Your task to perform on an android device: open the mobile data screen to see how much data has been used Image 0: 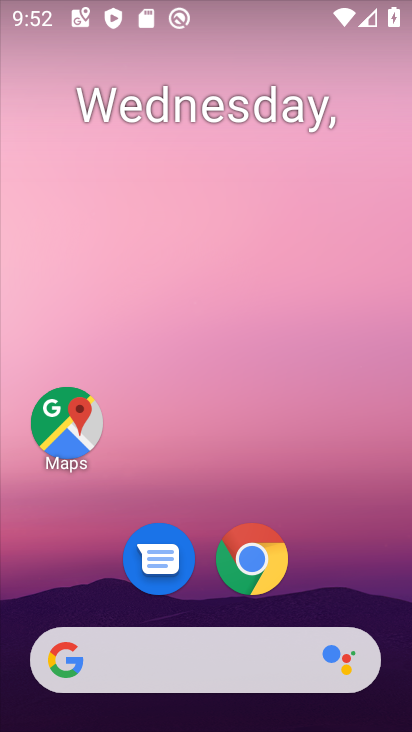
Step 0: drag from (226, 499) to (221, 41)
Your task to perform on an android device: open the mobile data screen to see how much data has been used Image 1: 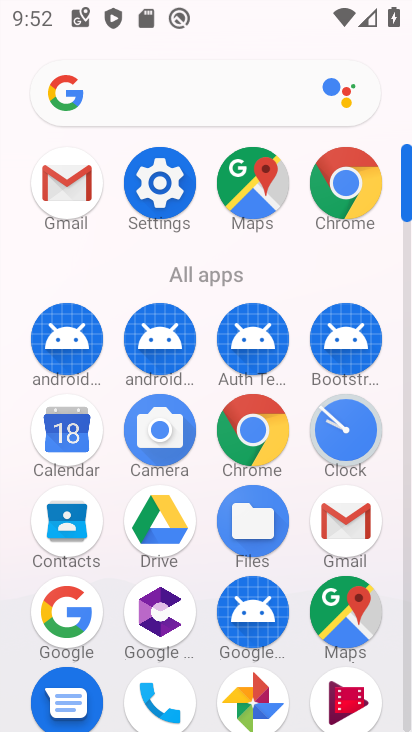
Step 1: click (149, 167)
Your task to perform on an android device: open the mobile data screen to see how much data has been used Image 2: 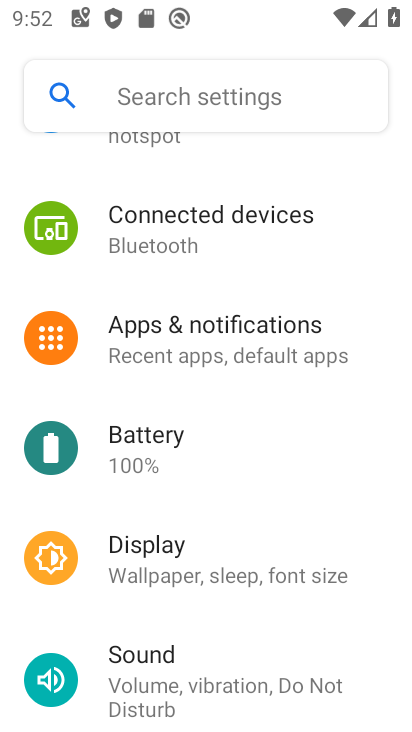
Step 2: drag from (200, 298) to (216, 580)
Your task to perform on an android device: open the mobile data screen to see how much data has been used Image 3: 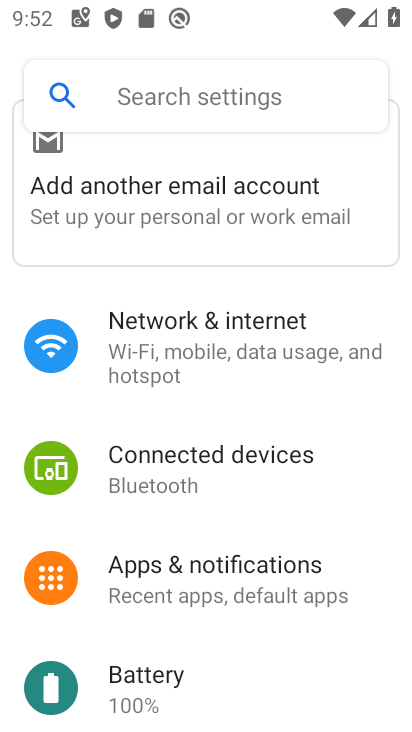
Step 3: click (265, 325)
Your task to perform on an android device: open the mobile data screen to see how much data has been used Image 4: 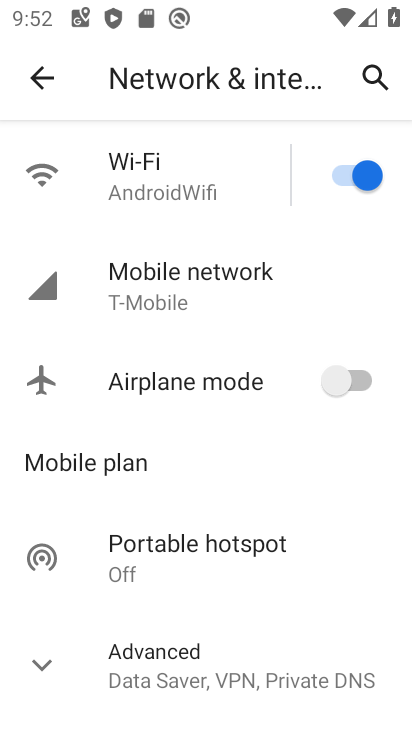
Step 4: click (278, 274)
Your task to perform on an android device: open the mobile data screen to see how much data has been used Image 5: 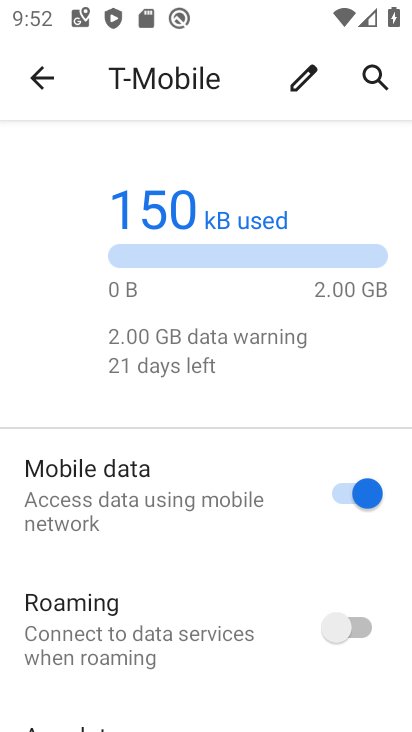
Step 5: task complete